Your task to perform on an android device: clear history in the chrome app Image 0: 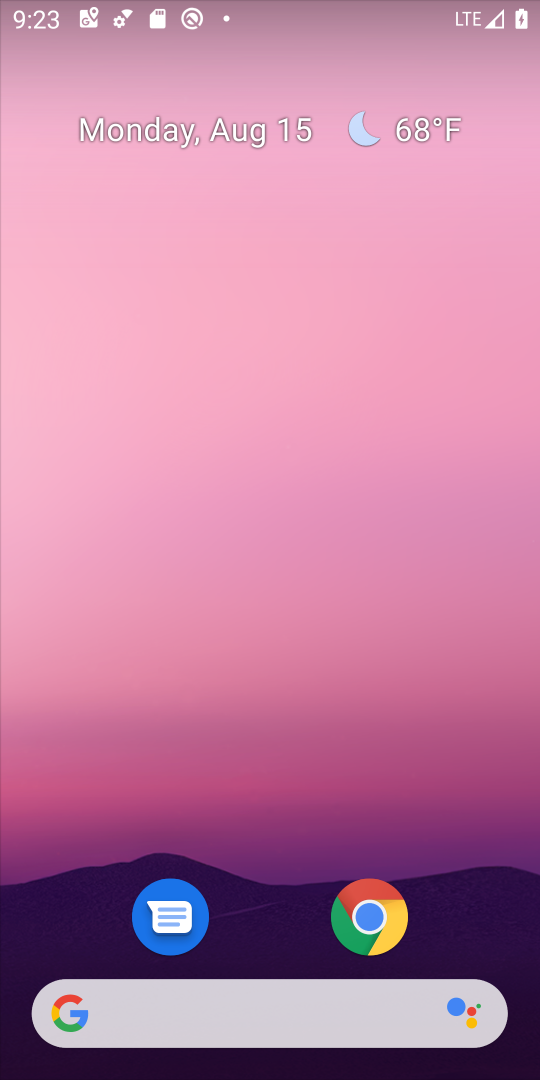
Step 0: click (370, 903)
Your task to perform on an android device: clear history in the chrome app Image 1: 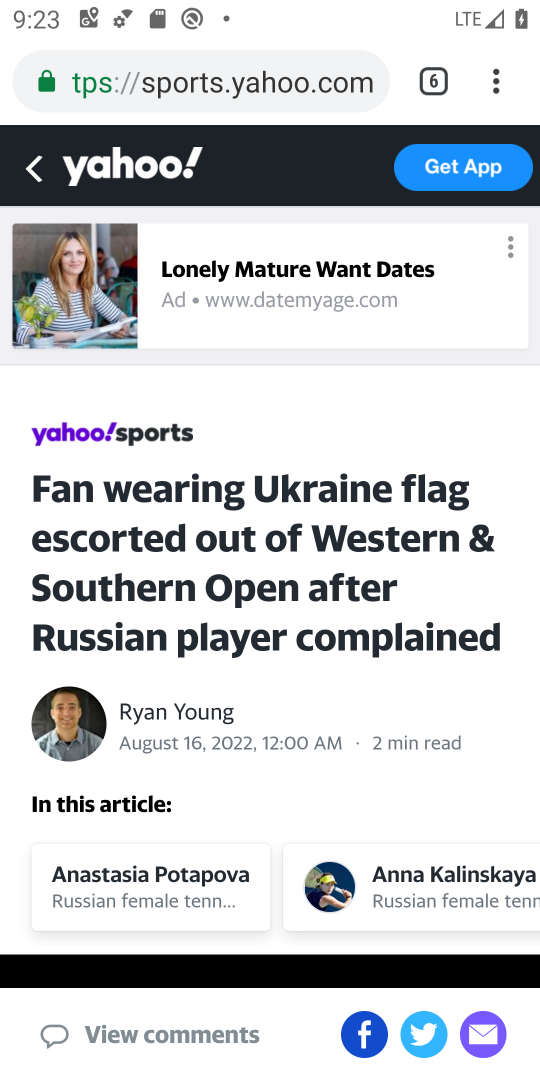
Step 1: click (370, 903)
Your task to perform on an android device: clear history in the chrome app Image 2: 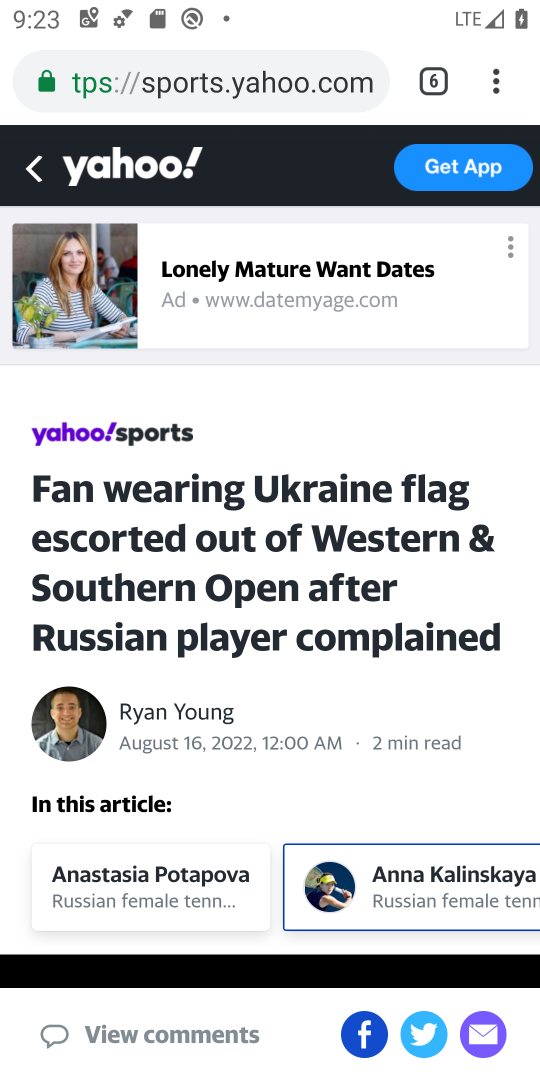
Step 2: click (493, 90)
Your task to perform on an android device: clear history in the chrome app Image 3: 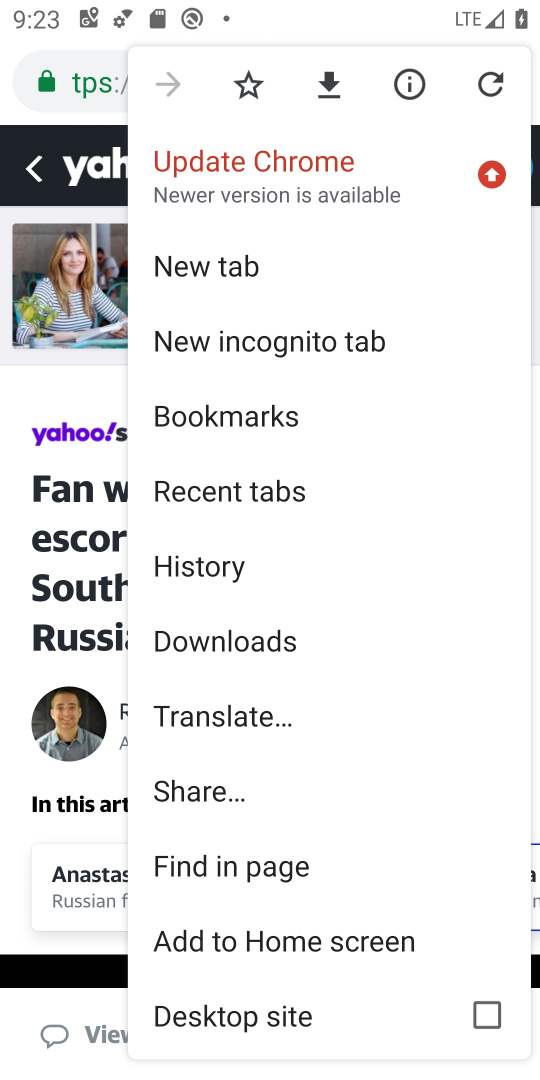
Step 3: click (221, 554)
Your task to perform on an android device: clear history in the chrome app Image 4: 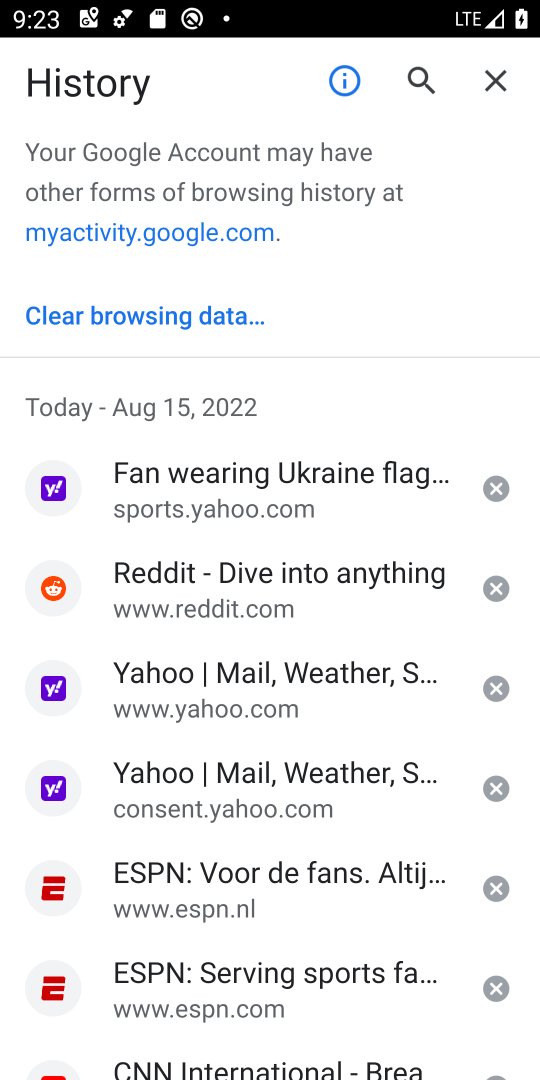
Step 4: click (223, 316)
Your task to perform on an android device: clear history in the chrome app Image 5: 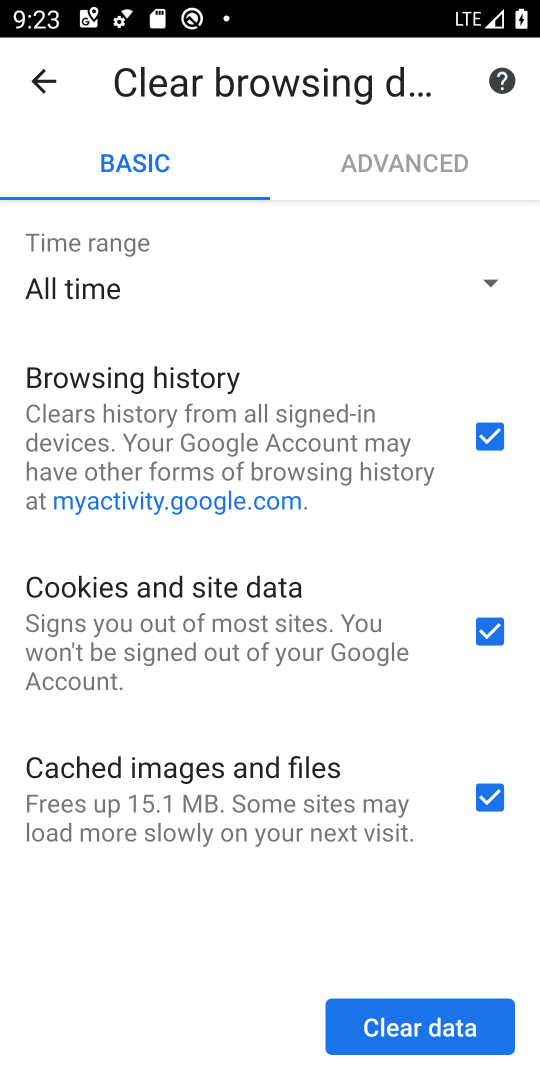
Step 5: click (495, 633)
Your task to perform on an android device: clear history in the chrome app Image 6: 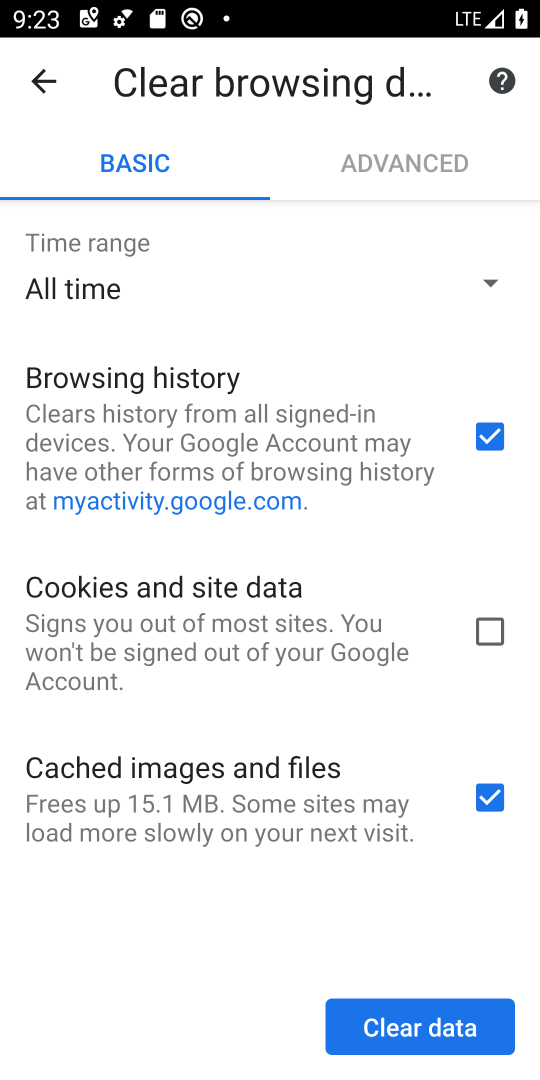
Step 6: click (494, 796)
Your task to perform on an android device: clear history in the chrome app Image 7: 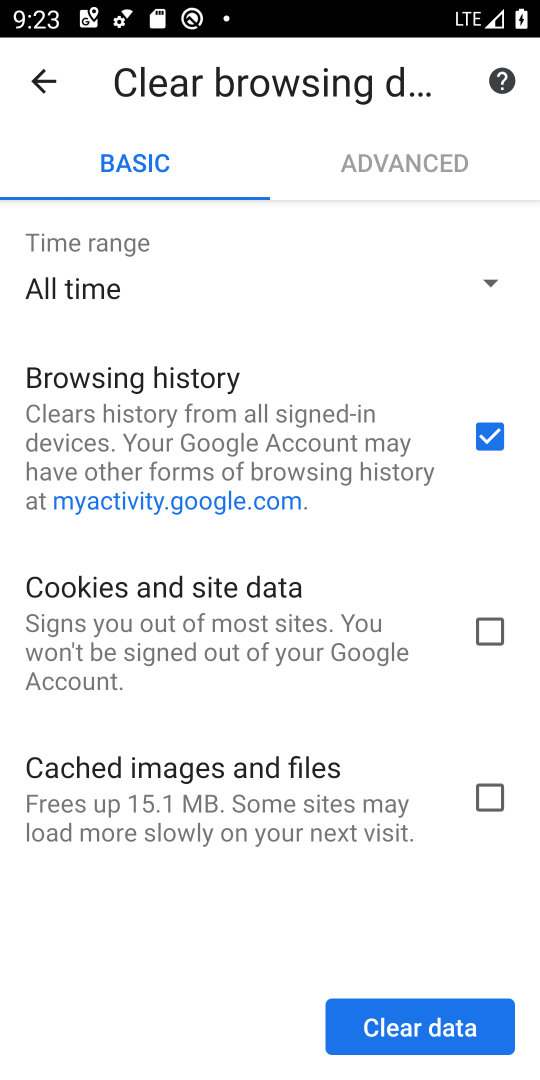
Step 7: click (454, 1022)
Your task to perform on an android device: clear history in the chrome app Image 8: 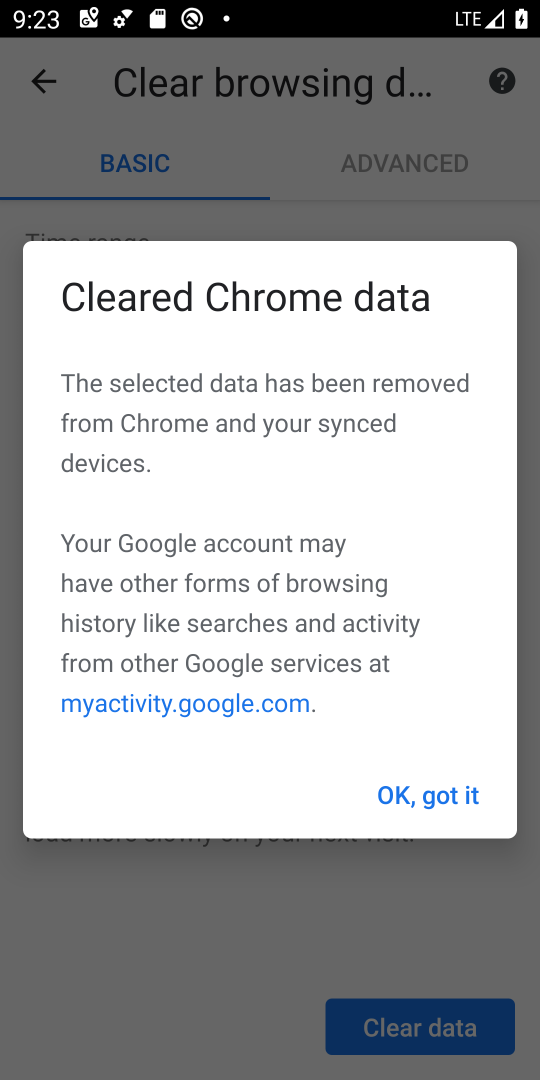
Step 8: click (458, 795)
Your task to perform on an android device: clear history in the chrome app Image 9: 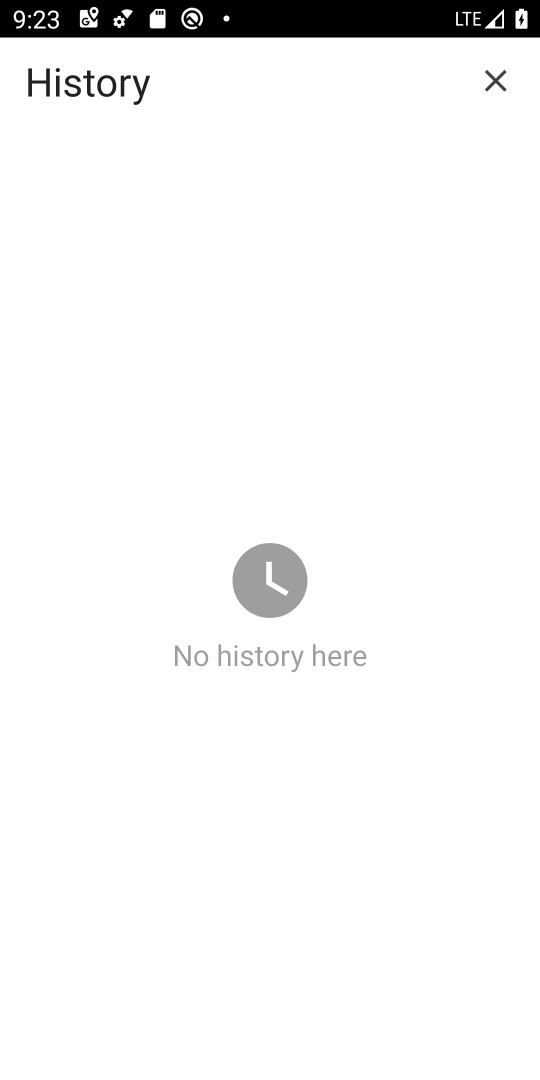
Step 9: task complete